Your task to perform on an android device: What's the weather today? Image 0: 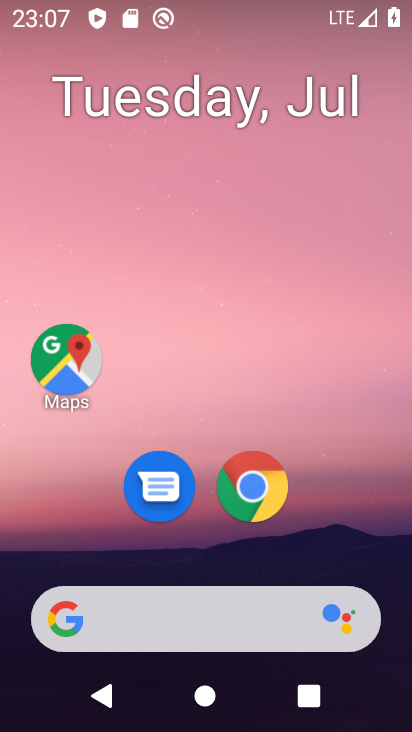
Step 0: click (214, 622)
Your task to perform on an android device: What's the weather today? Image 1: 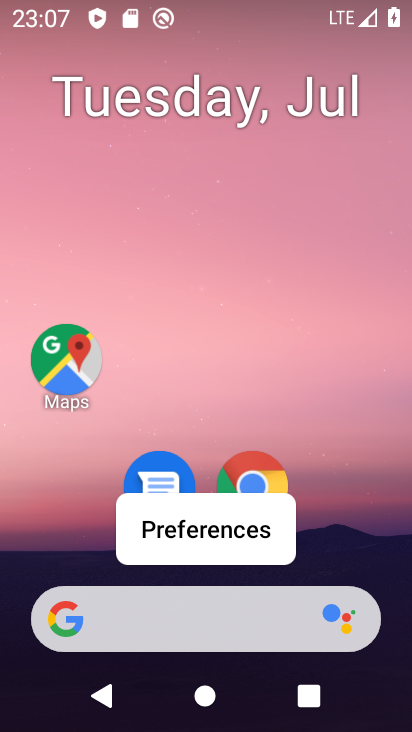
Step 1: click (208, 624)
Your task to perform on an android device: What's the weather today? Image 2: 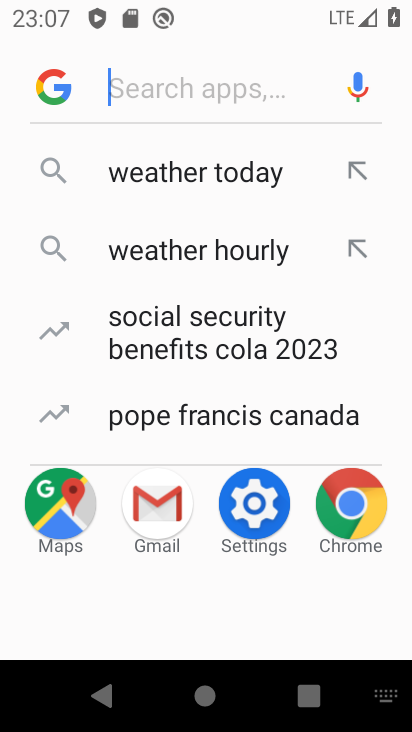
Step 2: click (239, 177)
Your task to perform on an android device: What's the weather today? Image 3: 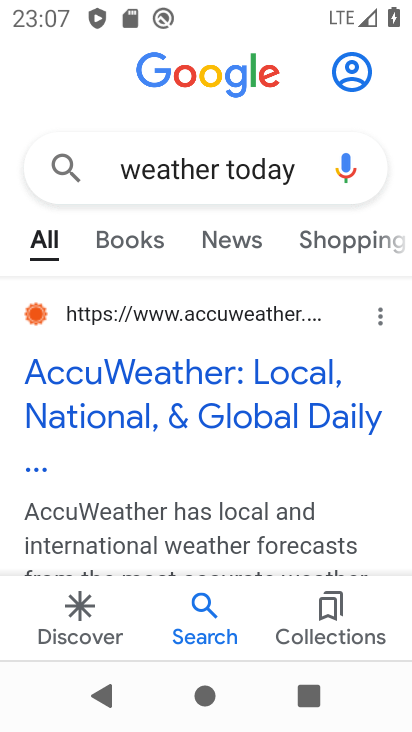
Step 3: task complete